Your task to perform on an android device: refresh tabs in the chrome app Image 0: 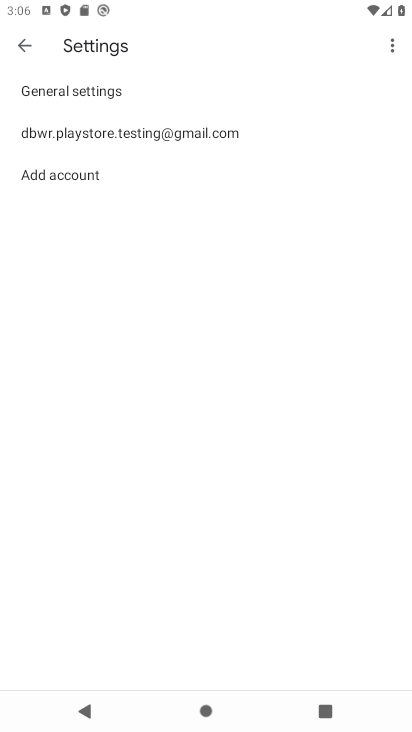
Step 0: press home button
Your task to perform on an android device: refresh tabs in the chrome app Image 1: 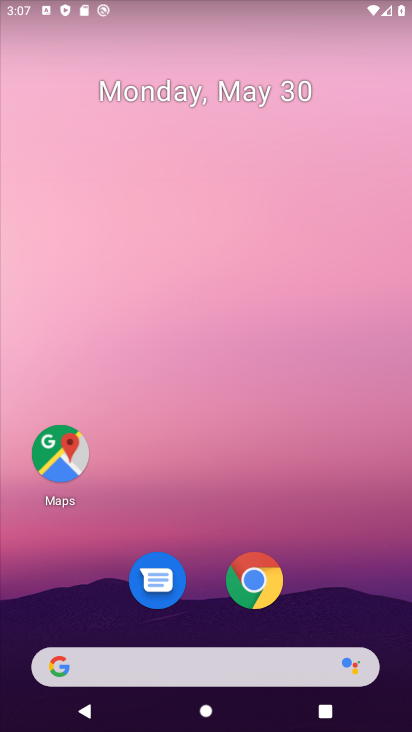
Step 1: click (249, 587)
Your task to perform on an android device: refresh tabs in the chrome app Image 2: 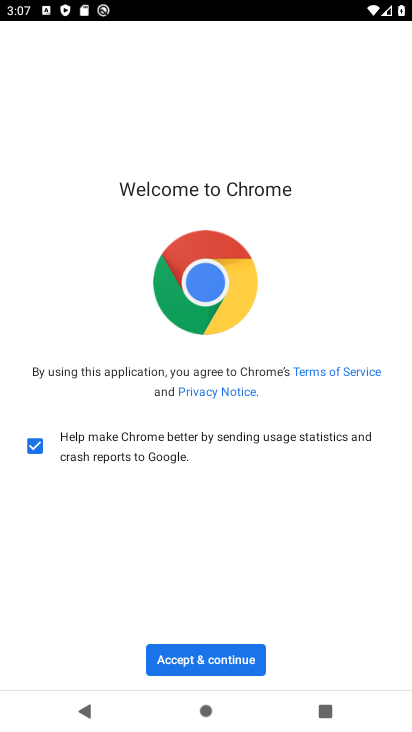
Step 2: click (214, 656)
Your task to perform on an android device: refresh tabs in the chrome app Image 3: 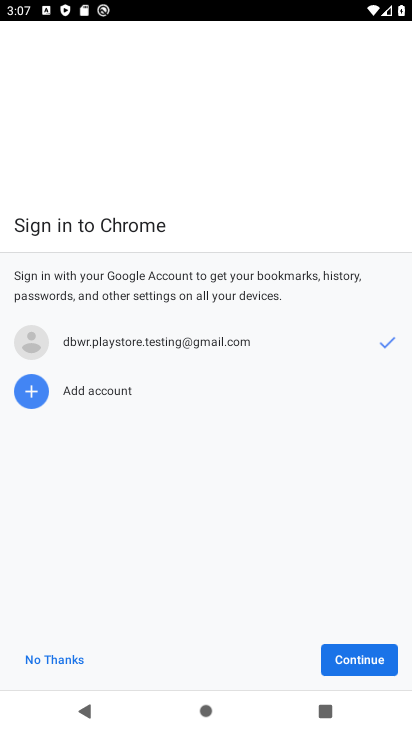
Step 3: click (350, 642)
Your task to perform on an android device: refresh tabs in the chrome app Image 4: 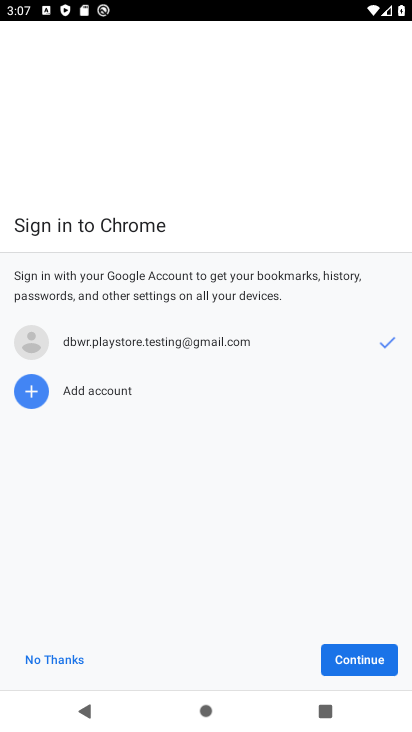
Step 4: click (350, 642)
Your task to perform on an android device: refresh tabs in the chrome app Image 5: 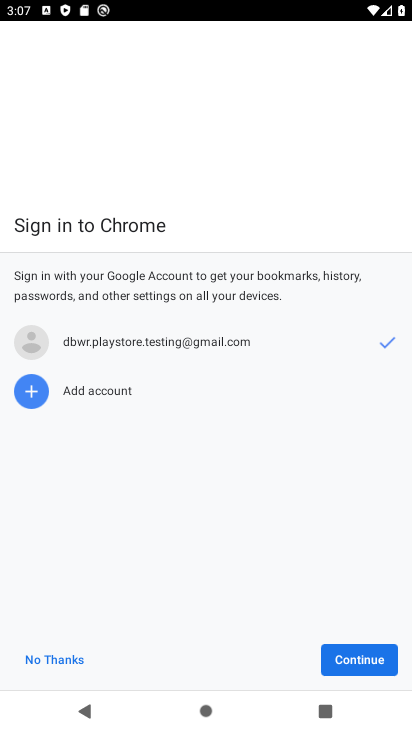
Step 5: click (350, 664)
Your task to perform on an android device: refresh tabs in the chrome app Image 6: 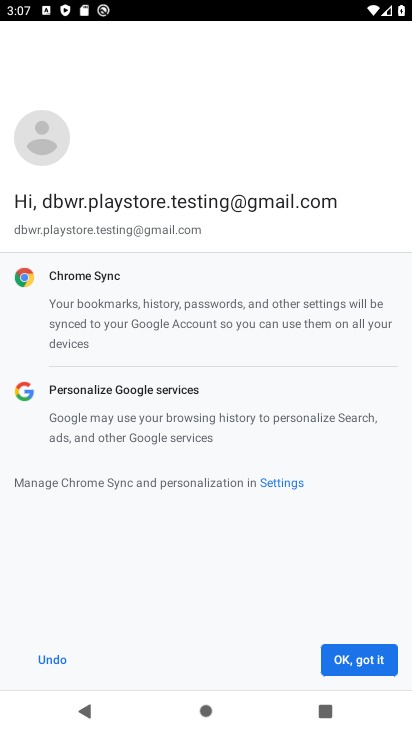
Step 6: click (352, 659)
Your task to perform on an android device: refresh tabs in the chrome app Image 7: 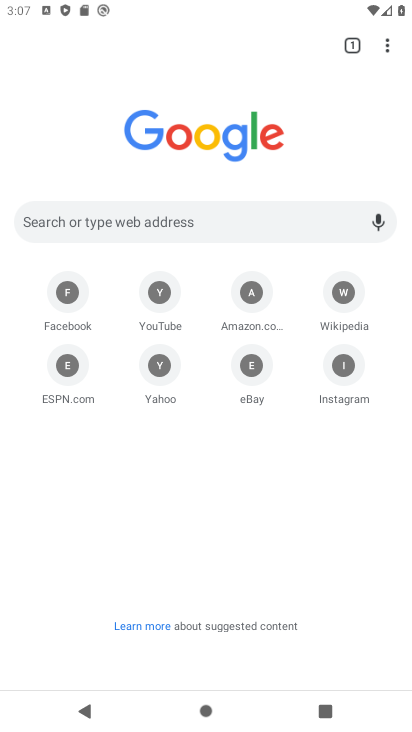
Step 7: click (384, 44)
Your task to perform on an android device: refresh tabs in the chrome app Image 8: 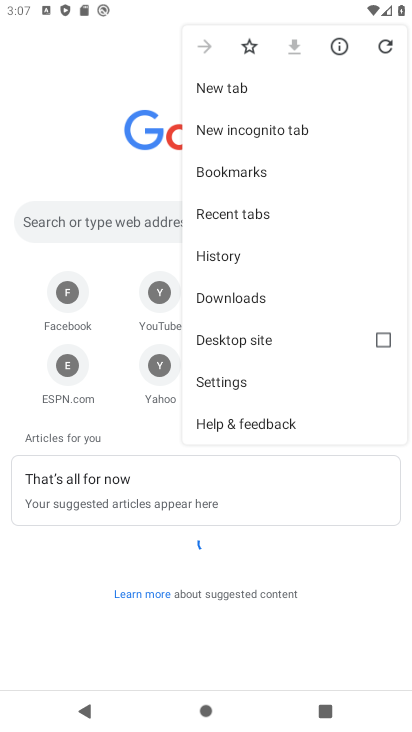
Step 8: click (387, 54)
Your task to perform on an android device: refresh tabs in the chrome app Image 9: 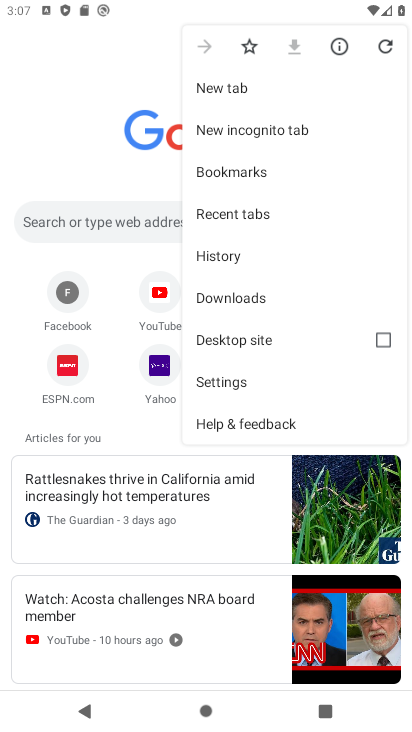
Step 9: click (384, 42)
Your task to perform on an android device: refresh tabs in the chrome app Image 10: 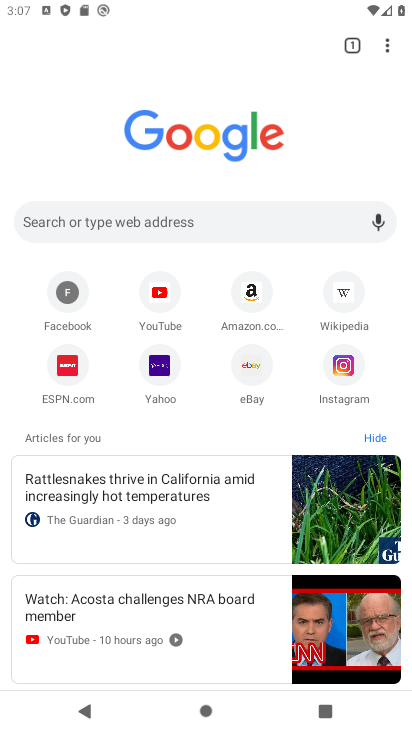
Step 10: task complete